Your task to perform on an android device: turn on javascript in the chrome app Image 0: 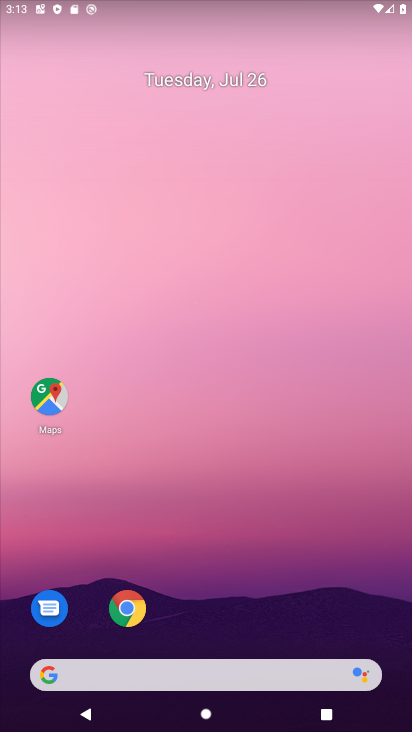
Step 0: click (126, 609)
Your task to perform on an android device: turn on javascript in the chrome app Image 1: 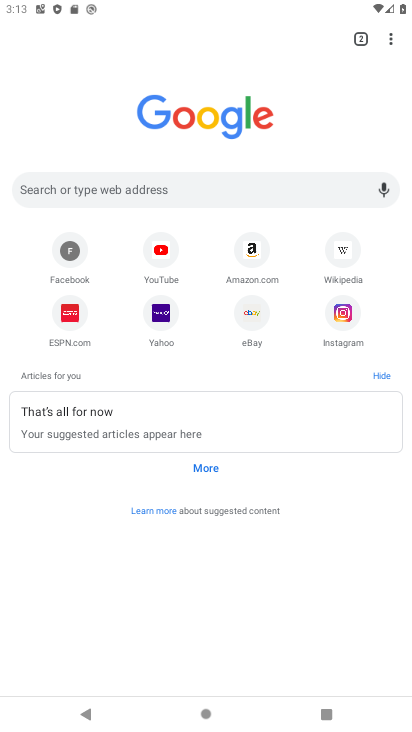
Step 1: task complete